Your task to perform on an android device: Open a new Chrome tab Image 0: 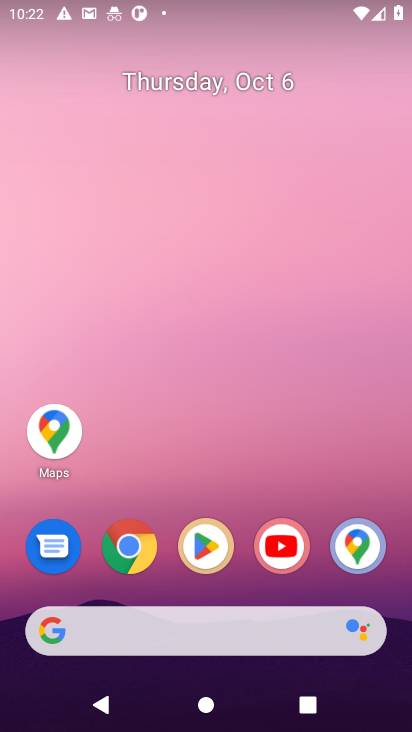
Step 0: click (129, 549)
Your task to perform on an android device: Open a new Chrome tab Image 1: 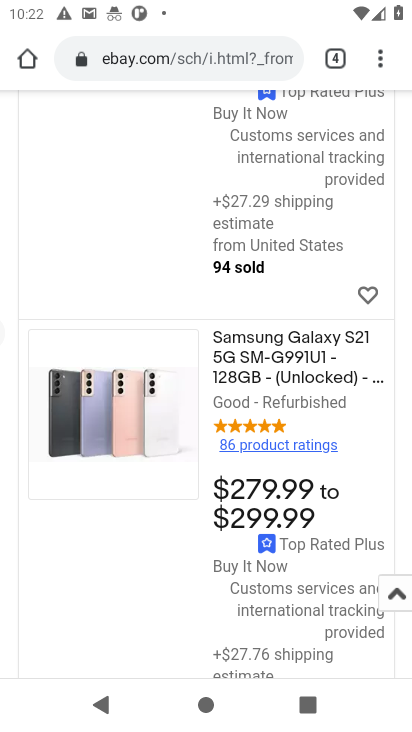
Step 1: click (160, 39)
Your task to perform on an android device: Open a new Chrome tab Image 2: 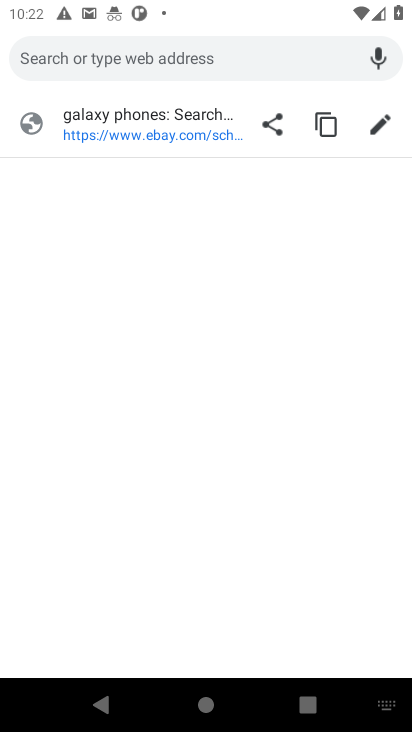
Step 2: press back button
Your task to perform on an android device: Open a new Chrome tab Image 3: 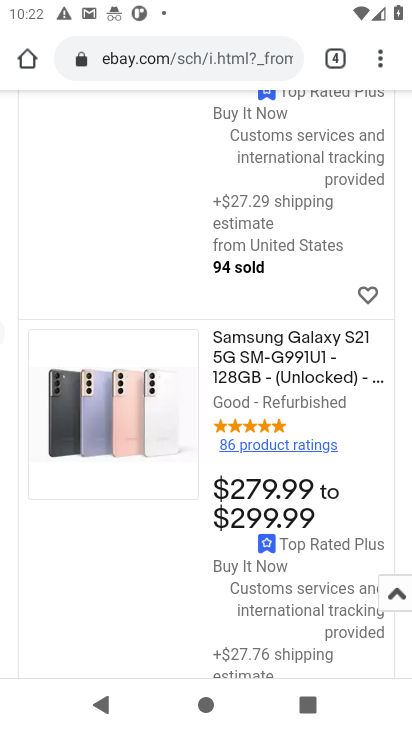
Step 3: click (379, 63)
Your task to perform on an android device: Open a new Chrome tab Image 4: 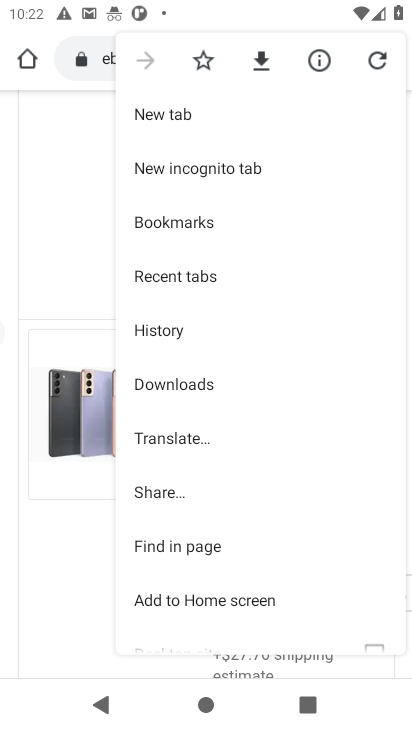
Step 4: click (167, 110)
Your task to perform on an android device: Open a new Chrome tab Image 5: 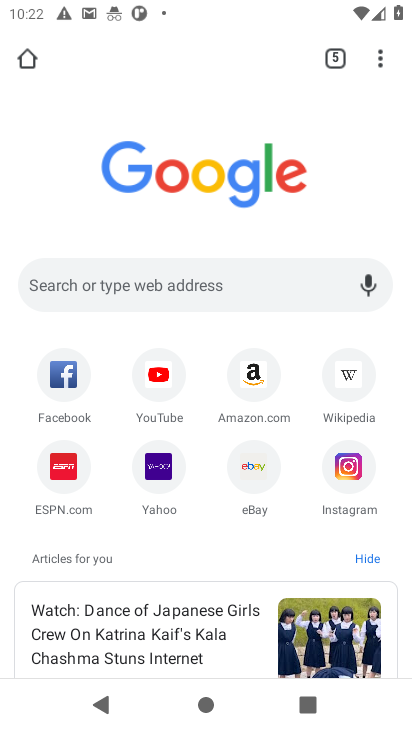
Step 5: task complete